Your task to perform on an android device: turn vacation reply on in the gmail app Image 0: 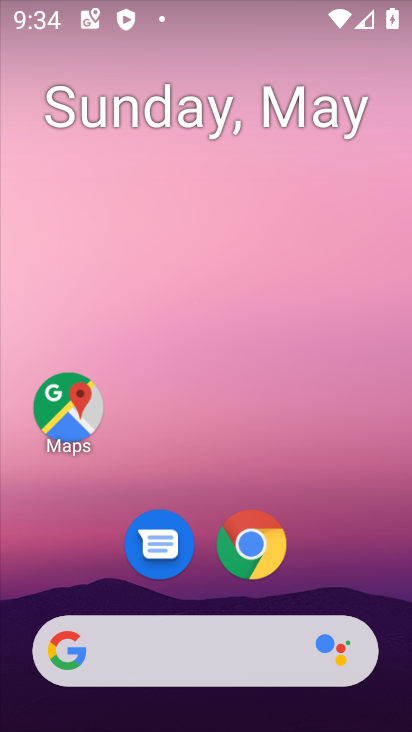
Step 0: drag from (340, 574) to (263, 39)
Your task to perform on an android device: turn vacation reply on in the gmail app Image 1: 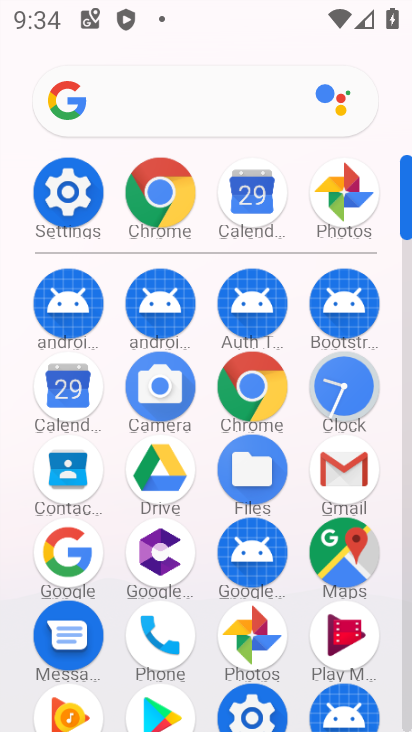
Step 1: click (360, 455)
Your task to perform on an android device: turn vacation reply on in the gmail app Image 2: 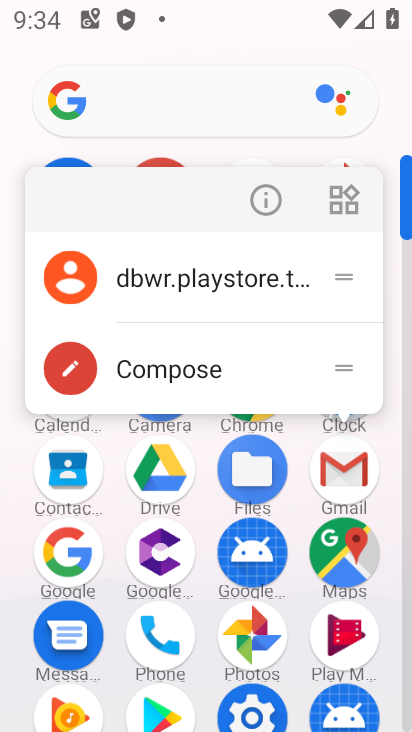
Step 2: click (355, 461)
Your task to perform on an android device: turn vacation reply on in the gmail app Image 3: 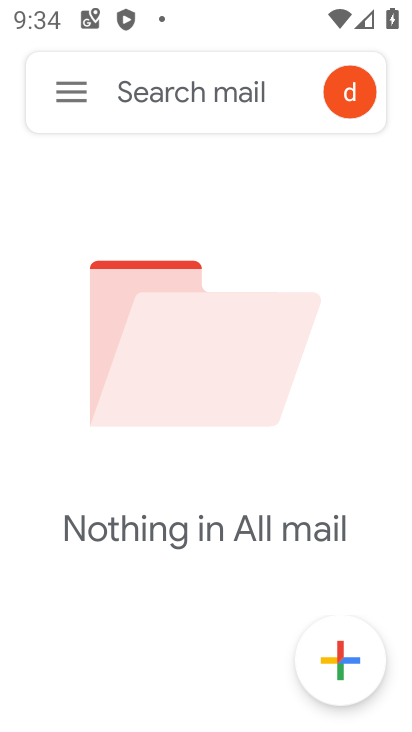
Step 3: click (45, 86)
Your task to perform on an android device: turn vacation reply on in the gmail app Image 4: 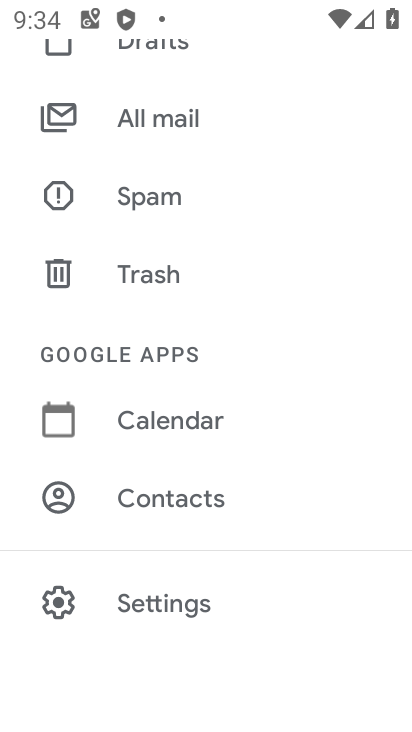
Step 4: click (146, 589)
Your task to perform on an android device: turn vacation reply on in the gmail app Image 5: 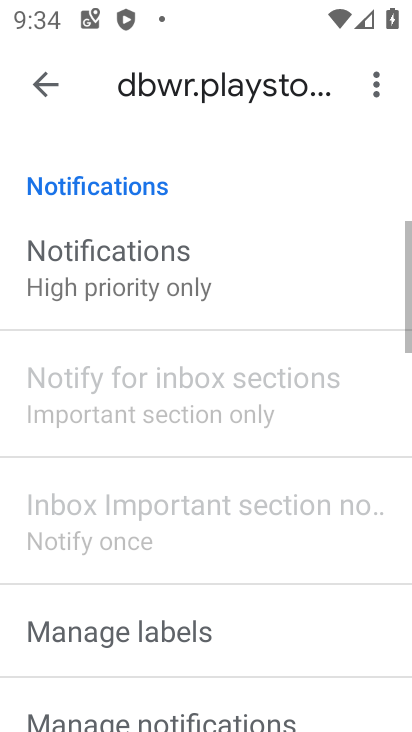
Step 5: drag from (146, 585) to (165, 68)
Your task to perform on an android device: turn vacation reply on in the gmail app Image 6: 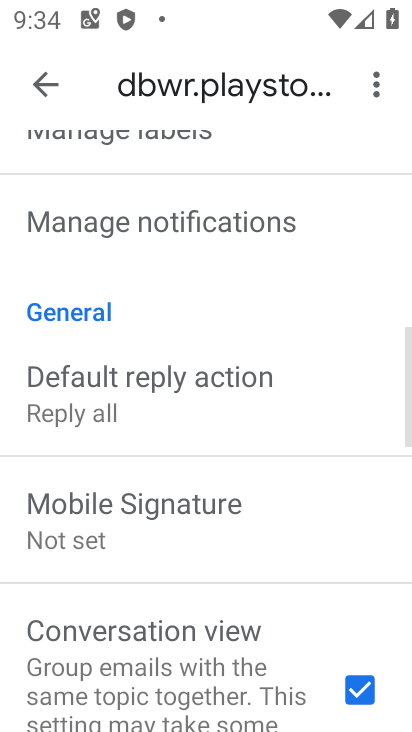
Step 6: drag from (170, 608) to (217, 68)
Your task to perform on an android device: turn vacation reply on in the gmail app Image 7: 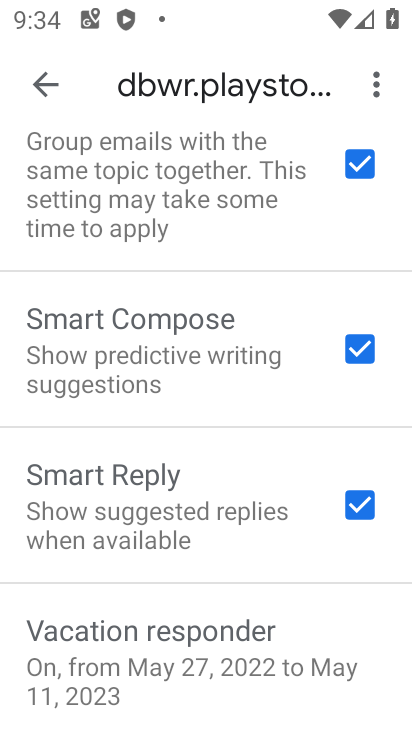
Step 7: drag from (221, 528) to (244, 238)
Your task to perform on an android device: turn vacation reply on in the gmail app Image 8: 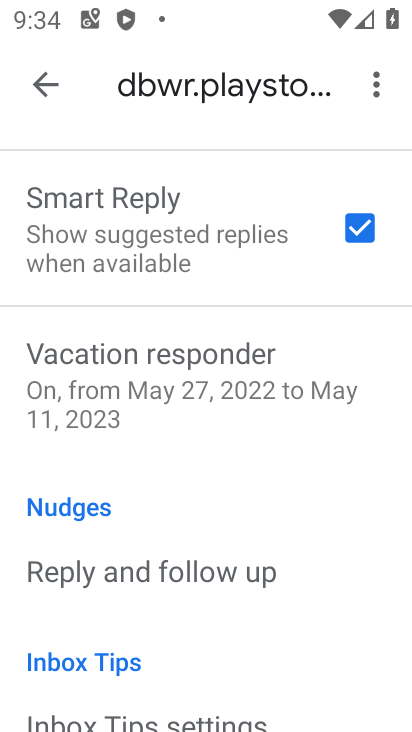
Step 8: click (165, 361)
Your task to perform on an android device: turn vacation reply on in the gmail app Image 9: 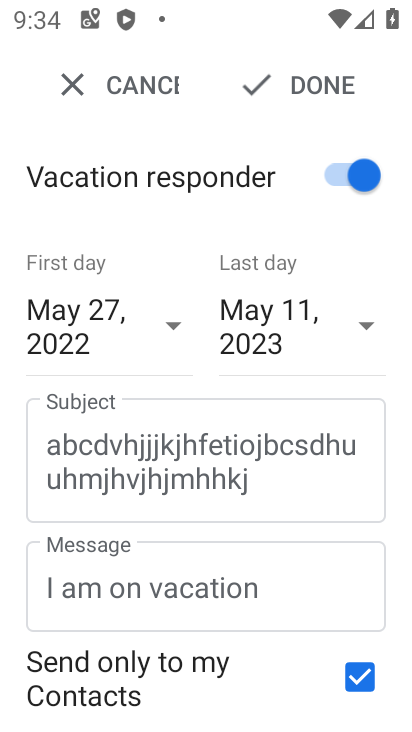
Step 9: task complete